Your task to perform on an android device: Go to privacy settings Image 0: 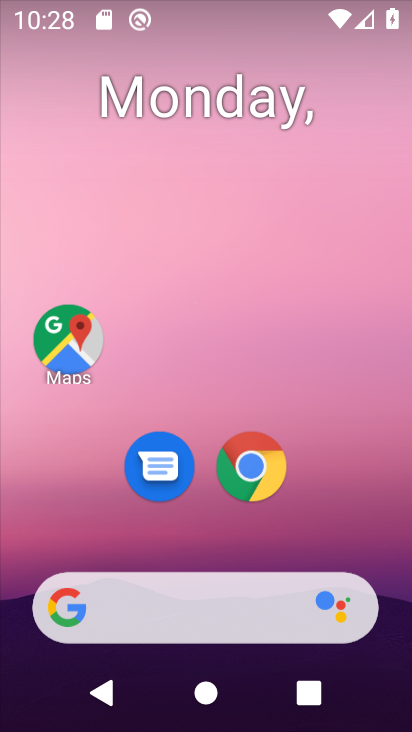
Step 0: drag from (131, 569) to (214, 1)
Your task to perform on an android device: Go to privacy settings Image 1: 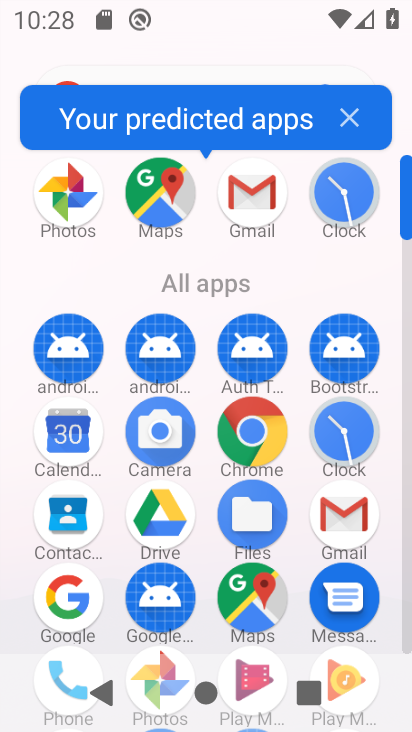
Step 1: click (254, 432)
Your task to perform on an android device: Go to privacy settings Image 2: 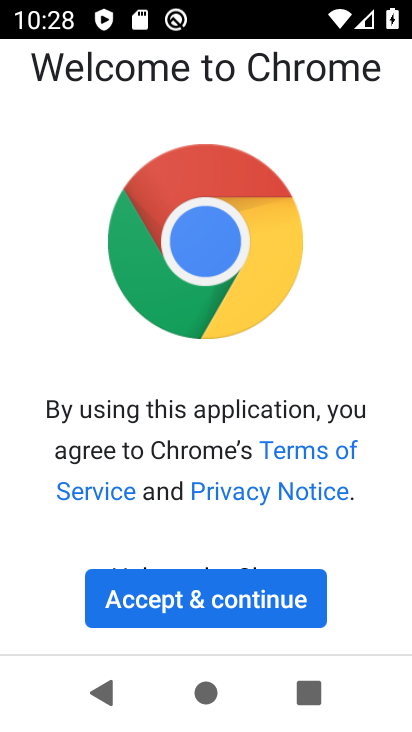
Step 2: click (246, 607)
Your task to perform on an android device: Go to privacy settings Image 3: 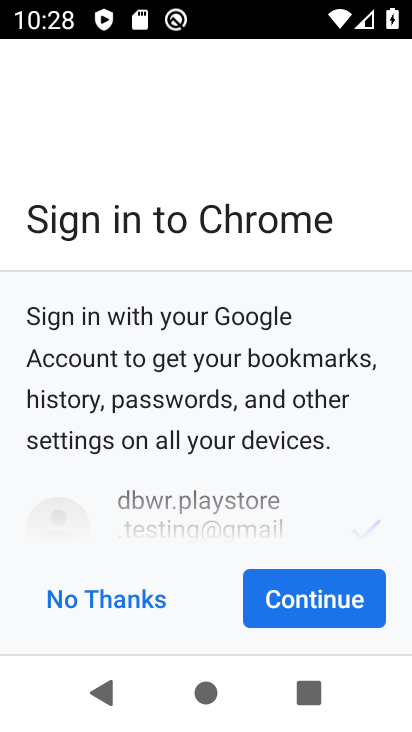
Step 3: click (289, 604)
Your task to perform on an android device: Go to privacy settings Image 4: 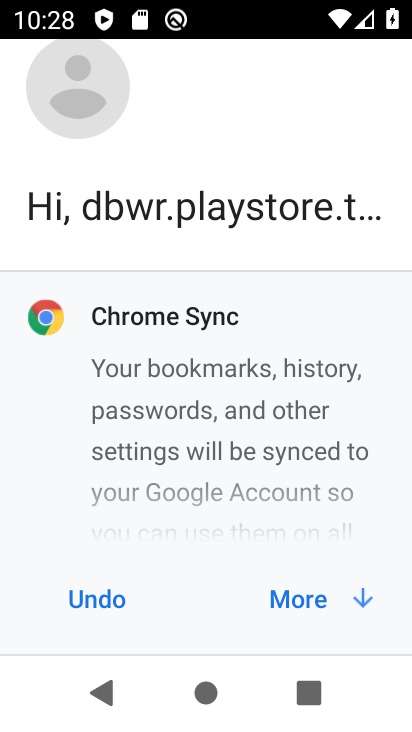
Step 4: click (291, 604)
Your task to perform on an android device: Go to privacy settings Image 5: 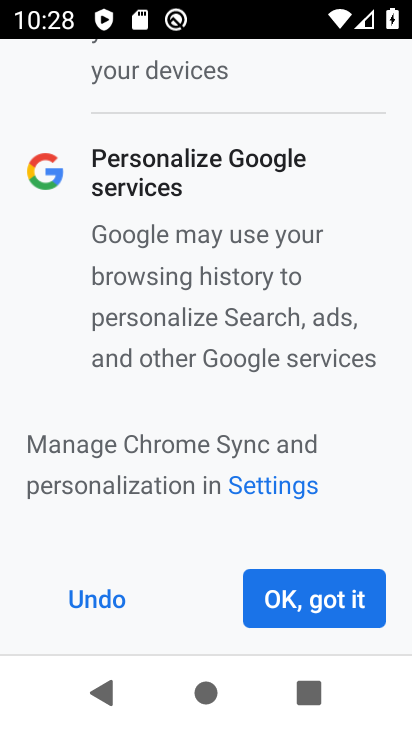
Step 5: click (291, 604)
Your task to perform on an android device: Go to privacy settings Image 6: 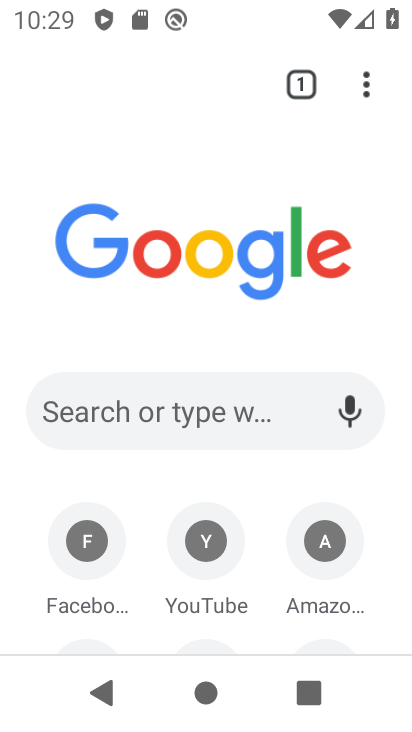
Step 6: drag from (385, 85) to (297, 508)
Your task to perform on an android device: Go to privacy settings Image 7: 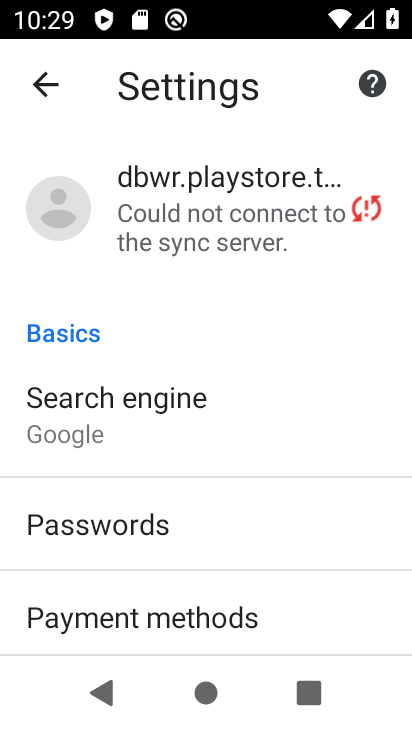
Step 7: drag from (137, 560) to (303, 148)
Your task to perform on an android device: Go to privacy settings Image 8: 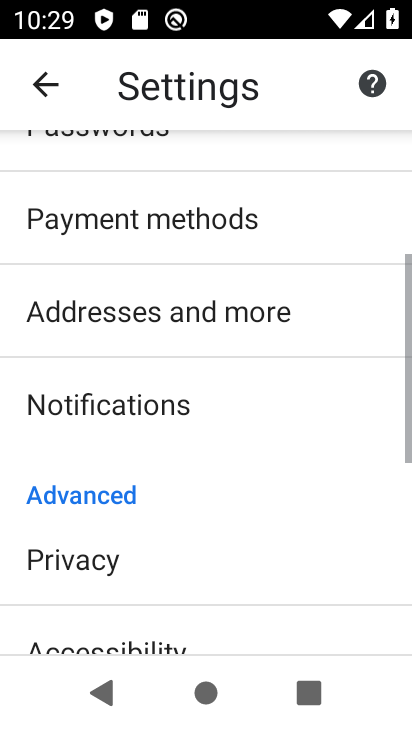
Step 8: drag from (198, 565) to (230, 434)
Your task to perform on an android device: Go to privacy settings Image 9: 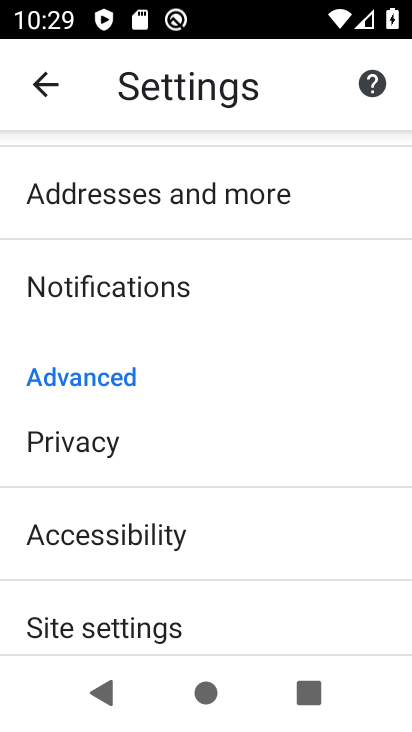
Step 9: click (208, 439)
Your task to perform on an android device: Go to privacy settings Image 10: 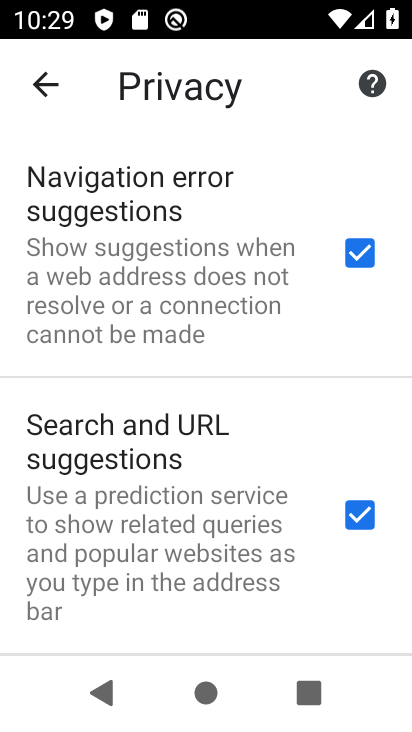
Step 10: task complete